Your task to perform on an android device: turn on translation in the chrome app Image 0: 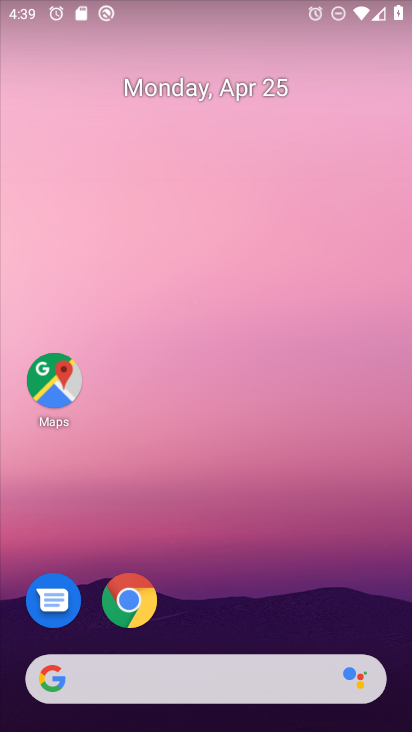
Step 0: drag from (206, 484) to (193, 14)
Your task to perform on an android device: turn on translation in the chrome app Image 1: 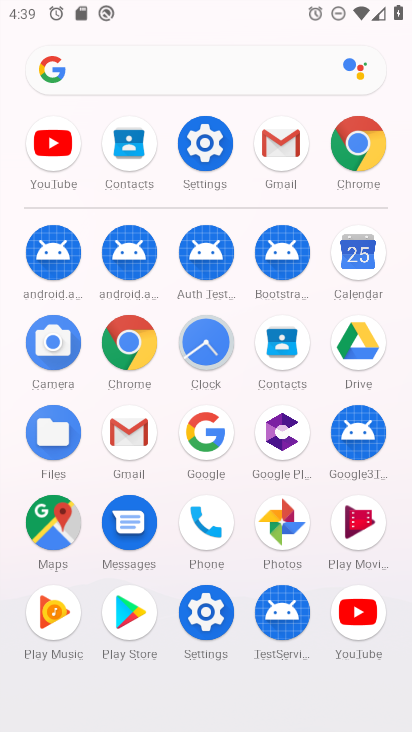
Step 1: drag from (3, 510) to (6, 266)
Your task to perform on an android device: turn on translation in the chrome app Image 2: 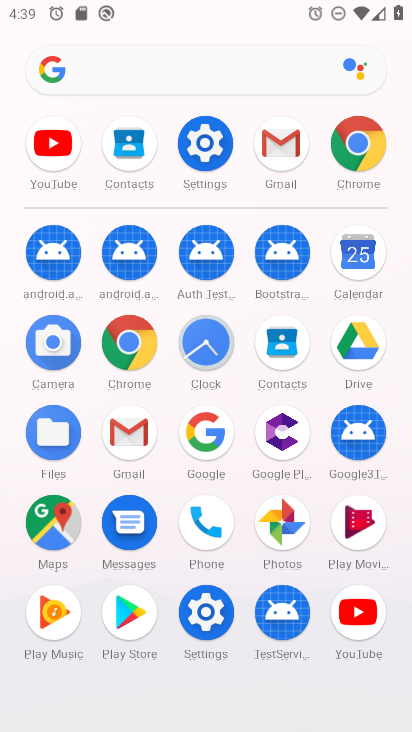
Step 2: click (124, 329)
Your task to perform on an android device: turn on translation in the chrome app Image 3: 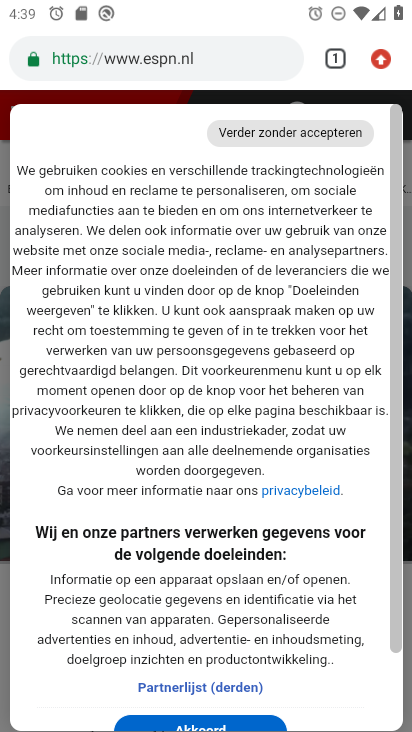
Step 3: click (380, 54)
Your task to perform on an android device: turn on translation in the chrome app Image 4: 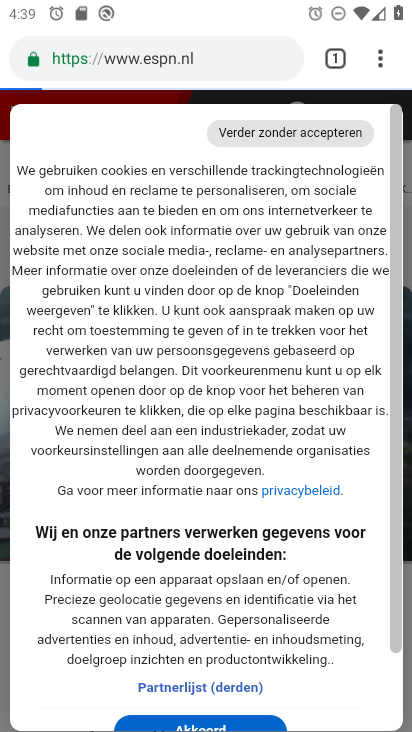
Step 4: drag from (244, 482) to (263, 196)
Your task to perform on an android device: turn on translation in the chrome app Image 5: 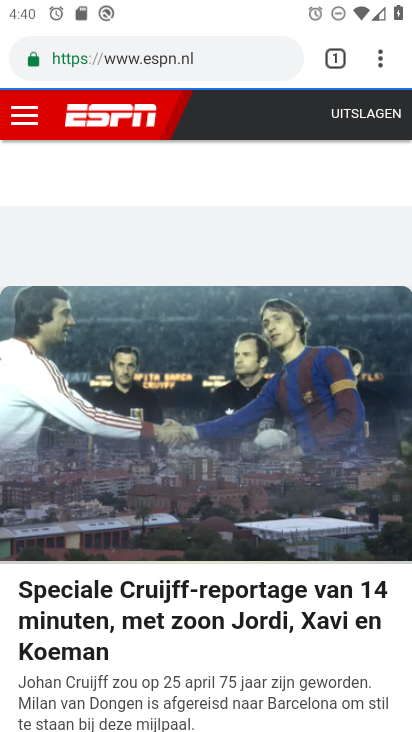
Step 5: drag from (378, 49) to (183, 626)
Your task to perform on an android device: turn on translation in the chrome app Image 6: 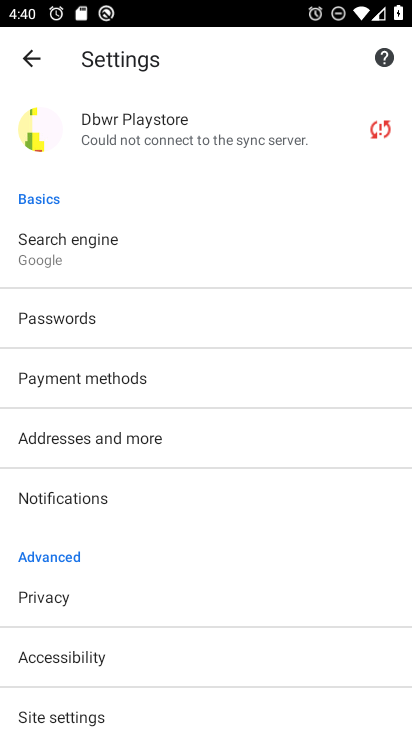
Step 6: drag from (188, 545) to (221, 113)
Your task to perform on an android device: turn on translation in the chrome app Image 7: 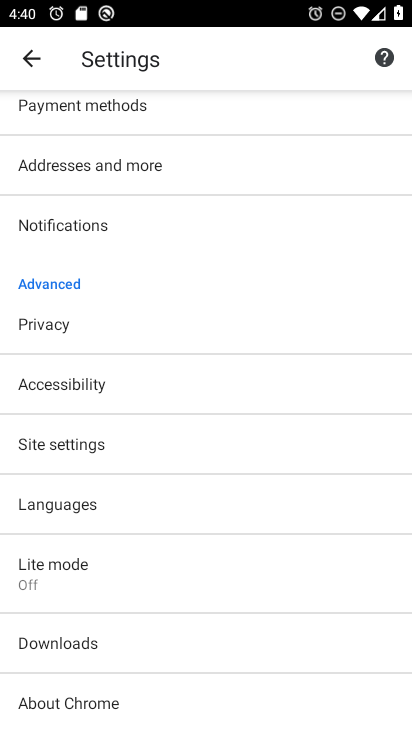
Step 7: drag from (184, 561) to (203, 205)
Your task to perform on an android device: turn on translation in the chrome app Image 8: 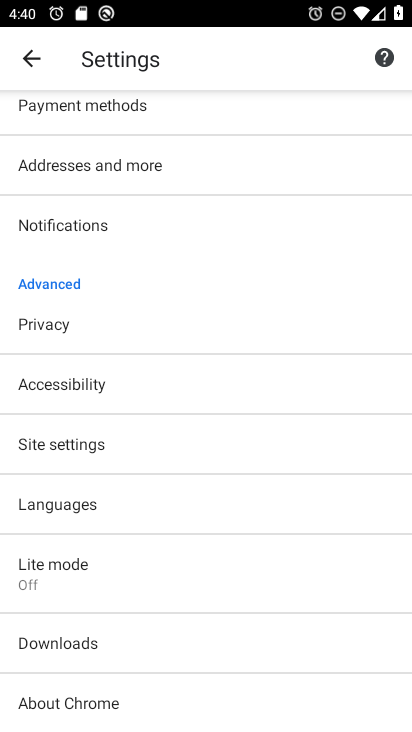
Step 8: drag from (185, 490) to (197, 142)
Your task to perform on an android device: turn on translation in the chrome app Image 9: 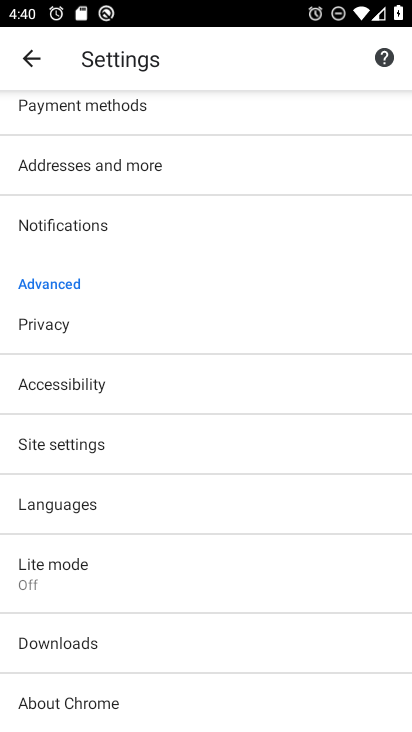
Step 9: click (94, 508)
Your task to perform on an android device: turn on translation in the chrome app Image 10: 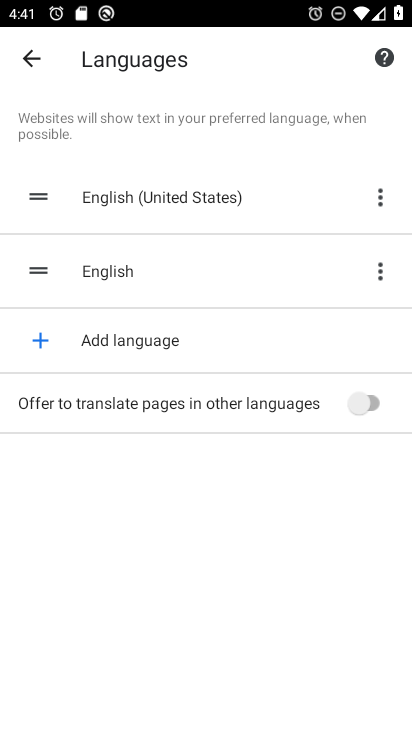
Step 10: click (363, 405)
Your task to perform on an android device: turn on translation in the chrome app Image 11: 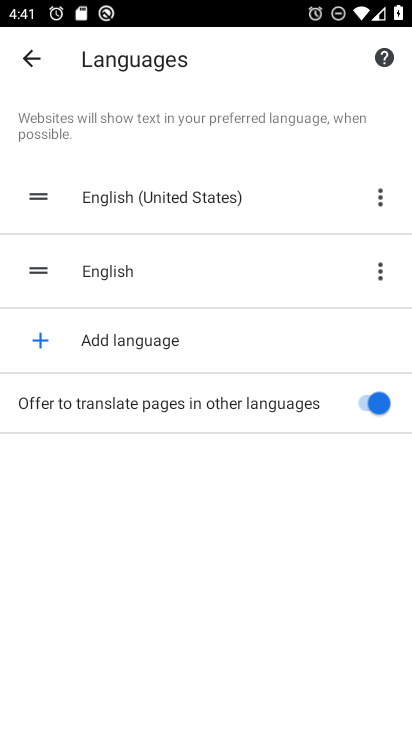
Step 11: task complete